Your task to perform on an android device: change timer sound Image 0: 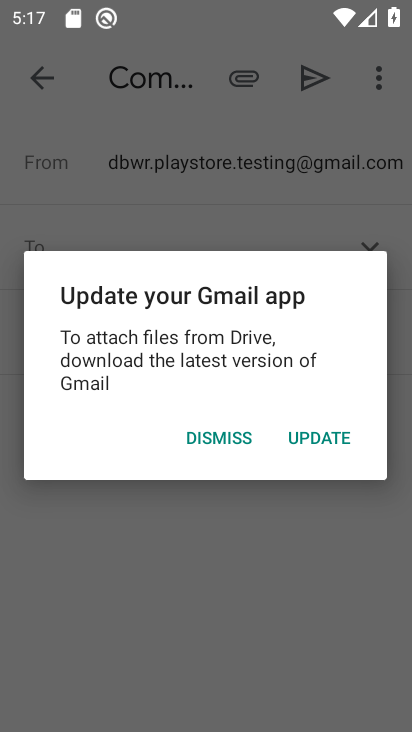
Step 0: press home button
Your task to perform on an android device: change timer sound Image 1: 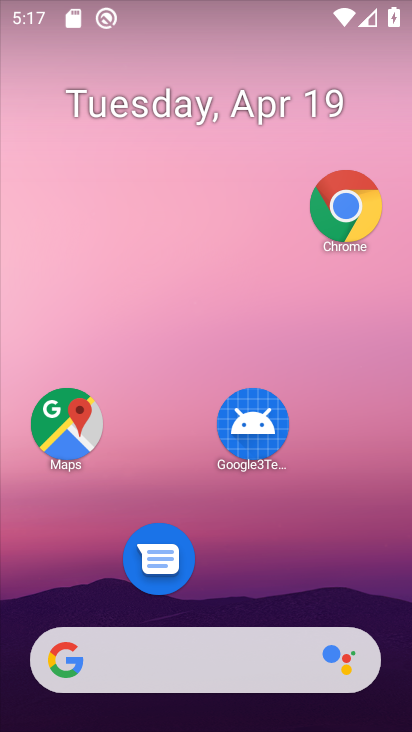
Step 1: drag from (222, 657) to (269, 170)
Your task to perform on an android device: change timer sound Image 2: 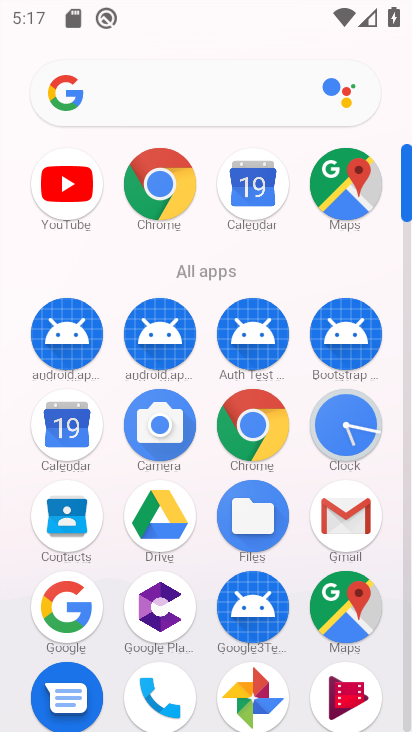
Step 2: click (354, 435)
Your task to perform on an android device: change timer sound Image 3: 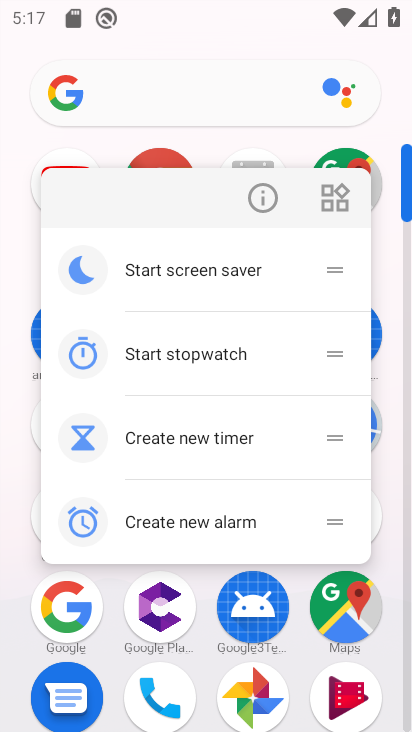
Step 3: click (161, 357)
Your task to perform on an android device: change timer sound Image 4: 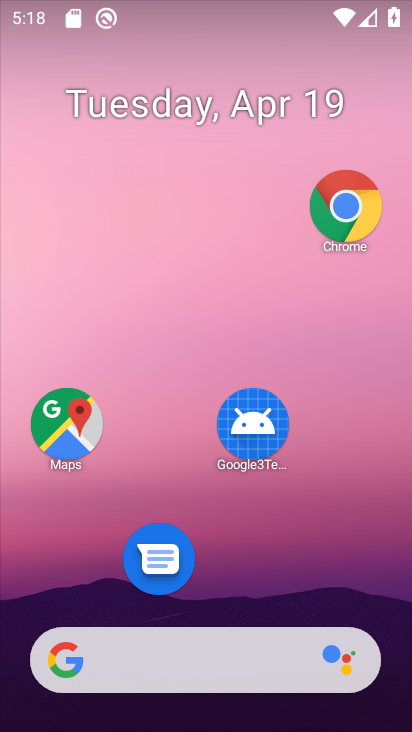
Step 4: drag from (179, 668) to (117, 75)
Your task to perform on an android device: change timer sound Image 5: 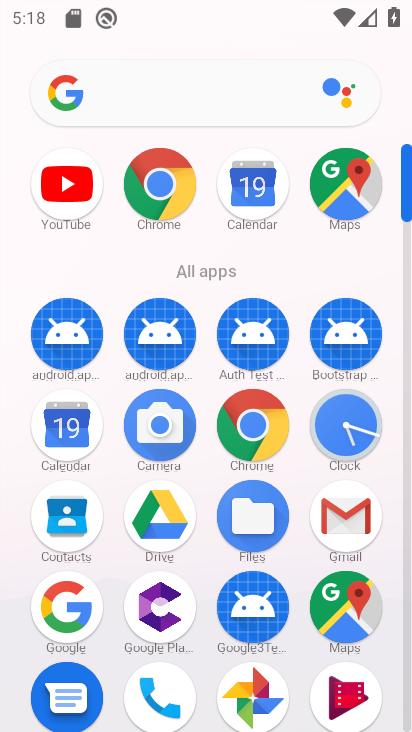
Step 5: click (335, 436)
Your task to perform on an android device: change timer sound Image 6: 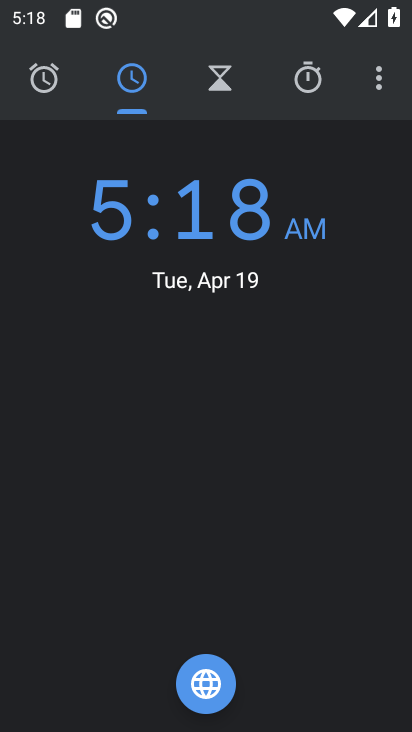
Step 6: click (219, 74)
Your task to perform on an android device: change timer sound Image 7: 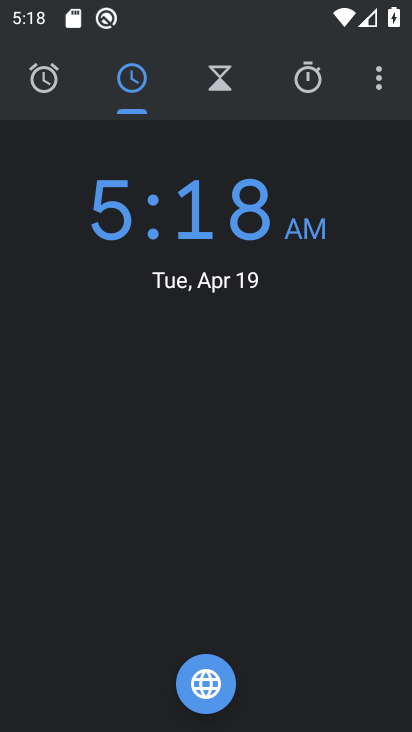
Step 7: click (221, 74)
Your task to perform on an android device: change timer sound Image 8: 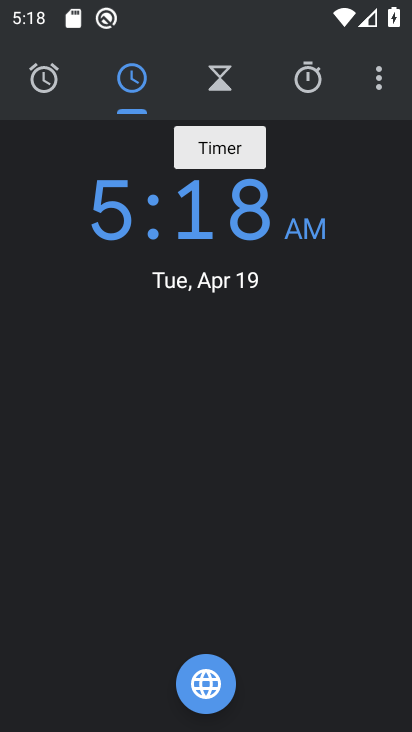
Step 8: click (224, 98)
Your task to perform on an android device: change timer sound Image 9: 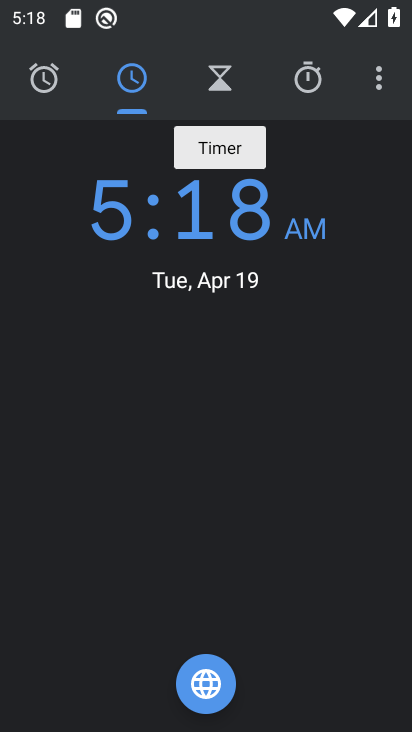
Step 9: click (218, 79)
Your task to perform on an android device: change timer sound Image 10: 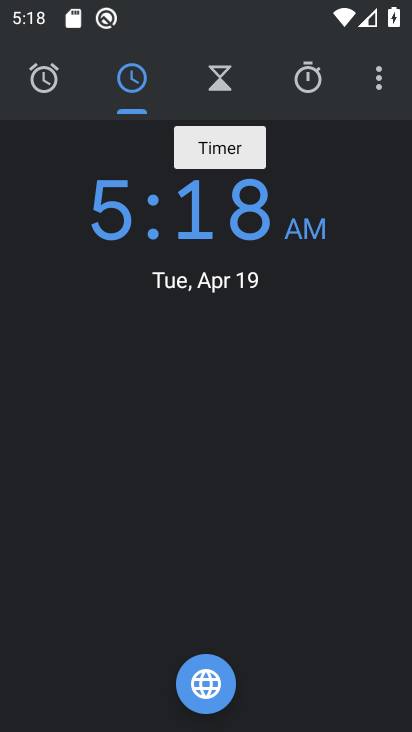
Step 10: click (219, 83)
Your task to perform on an android device: change timer sound Image 11: 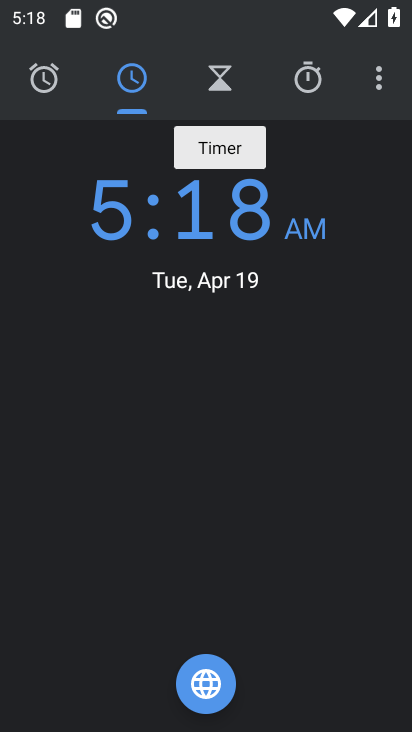
Step 11: click (385, 84)
Your task to perform on an android device: change timer sound Image 12: 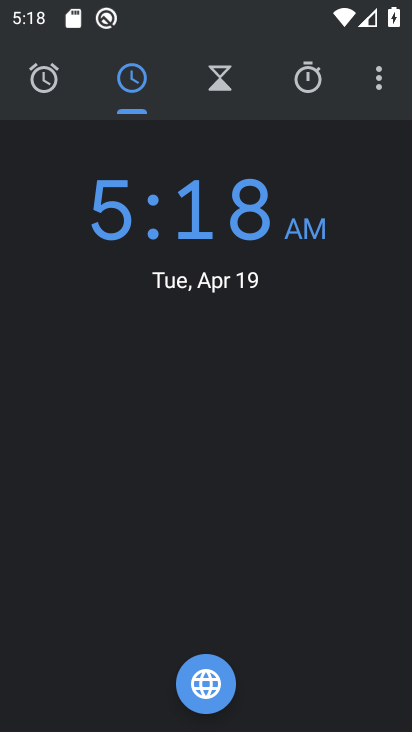
Step 12: click (336, 151)
Your task to perform on an android device: change timer sound Image 13: 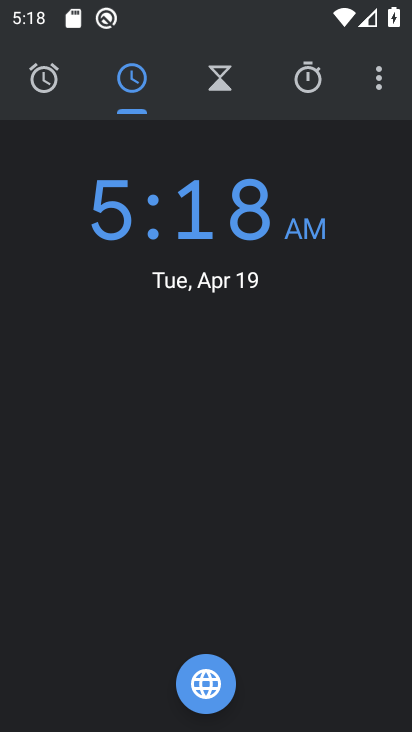
Step 13: click (378, 78)
Your task to perform on an android device: change timer sound Image 14: 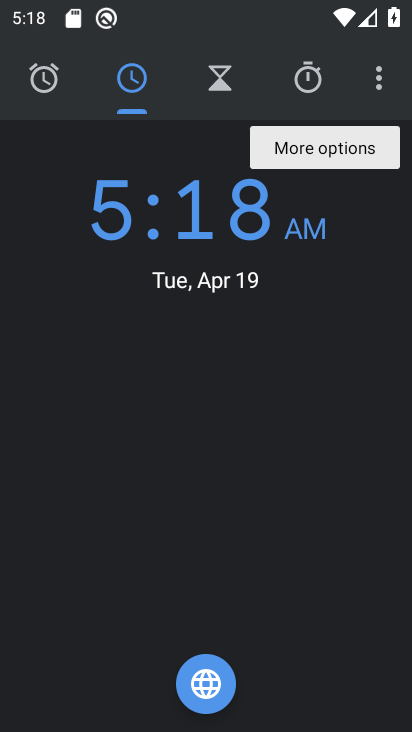
Step 14: click (378, 78)
Your task to perform on an android device: change timer sound Image 15: 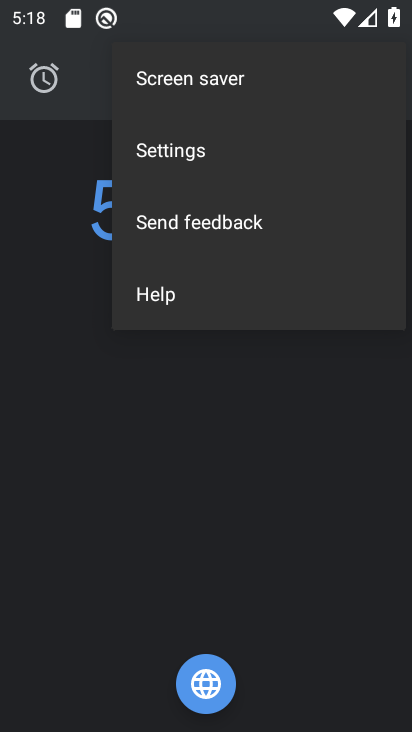
Step 15: click (192, 149)
Your task to perform on an android device: change timer sound Image 16: 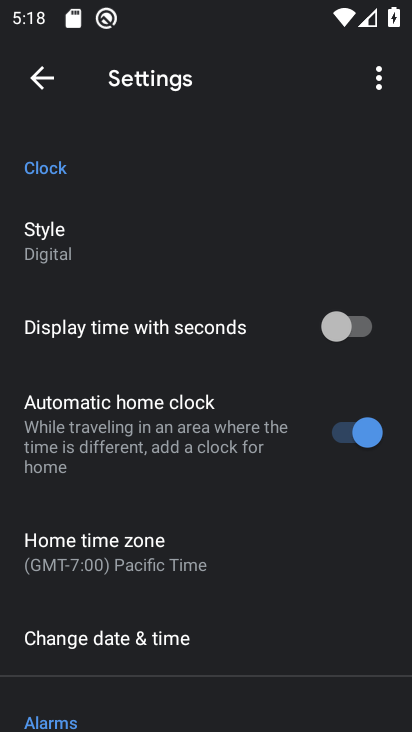
Step 16: drag from (212, 632) to (224, 368)
Your task to perform on an android device: change timer sound Image 17: 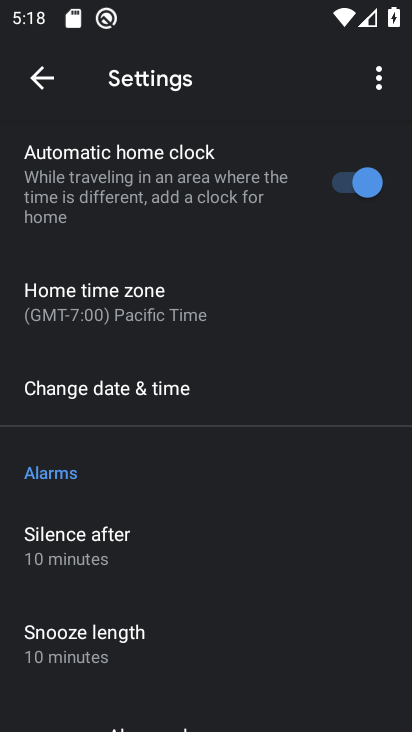
Step 17: drag from (216, 648) to (229, 396)
Your task to perform on an android device: change timer sound Image 18: 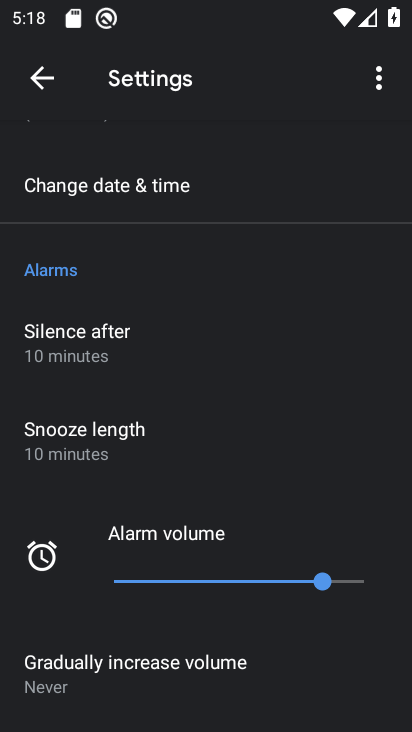
Step 18: drag from (215, 680) to (219, 466)
Your task to perform on an android device: change timer sound Image 19: 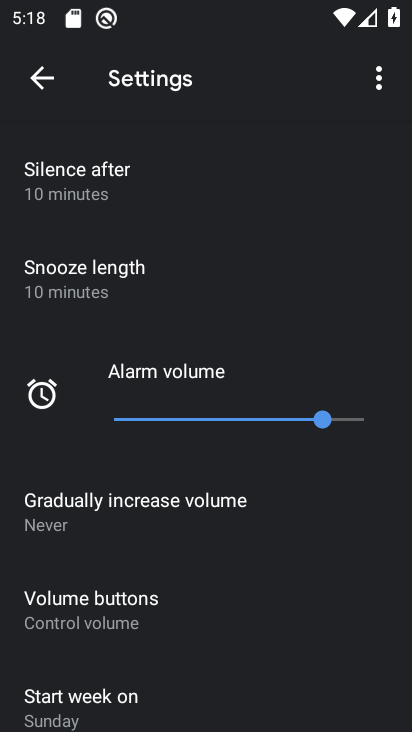
Step 19: drag from (169, 705) to (193, 448)
Your task to perform on an android device: change timer sound Image 20: 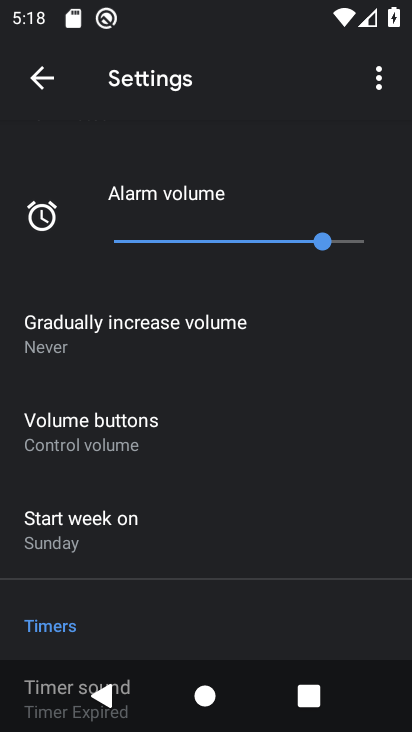
Step 20: drag from (218, 617) to (210, 406)
Your task to perform on an android device: change timer sound Image 21: 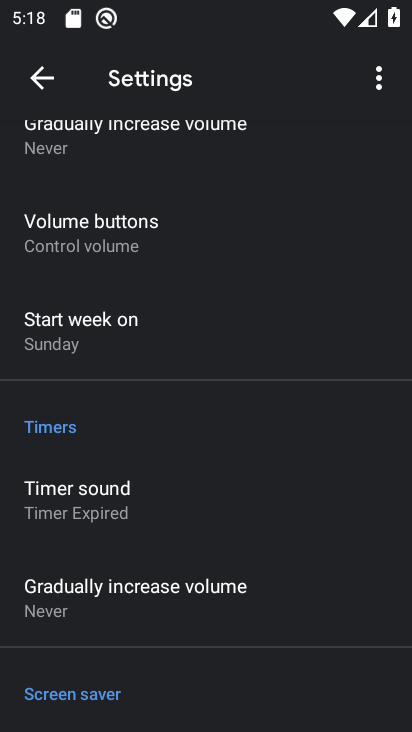
Step 21: click (87, 511)
Your task to perform on an android device: change timer sound Image 22: 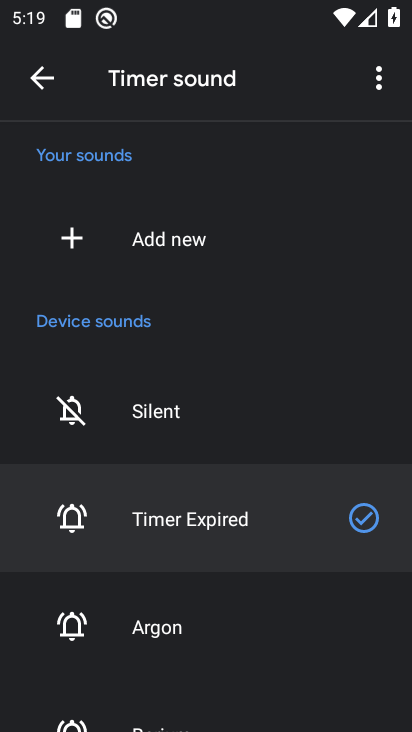
Step 22: click (161, 630)
Your task to perform on an android device: change timer sound Image 23: 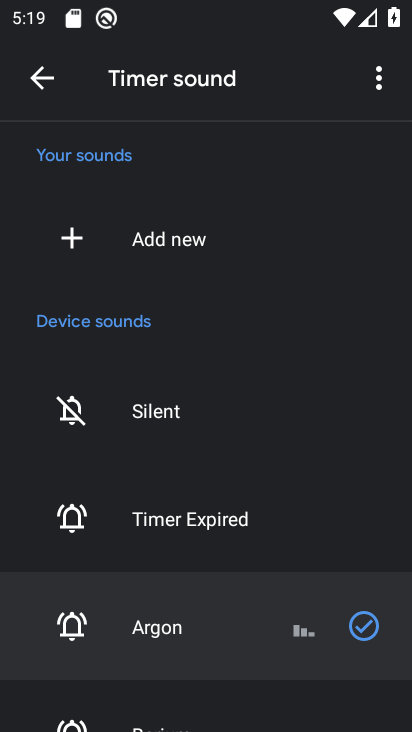
Step 23: task complete